Your task to perform on an android device: Search for vegetarian restaurants on Maps Image 0: 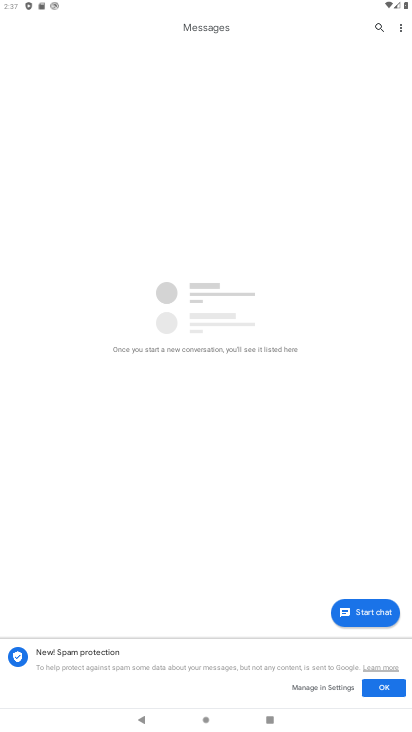
Step 0: press home button
Your task to perform on an android device: Search for vegetarian restaurants on Maps Image 1: 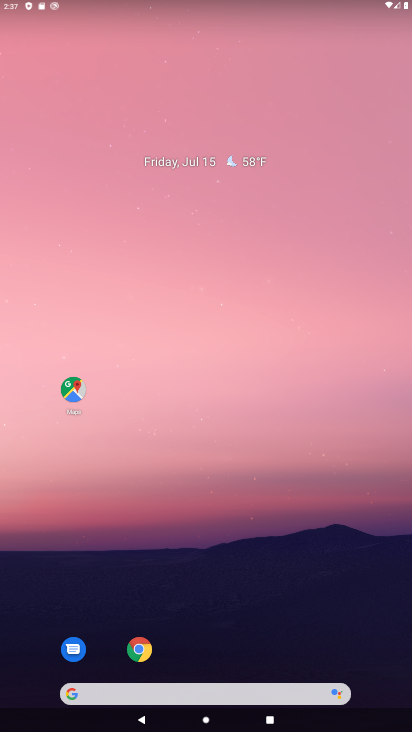
Step 1: drag from (228, 707) to (220, 96)
Your task to perform on an android device: Search for vegetarian restaurants on Maps Image 2: 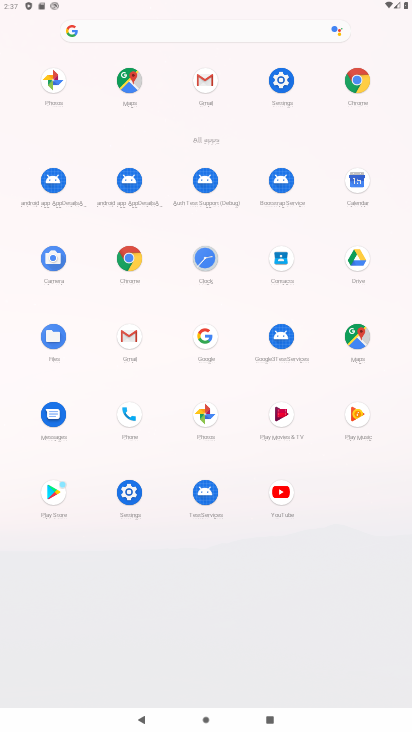
Step 2: click (363, 339)
Your task to perform on an android device: Search for vegetarian restaurants on Maps Image 3: 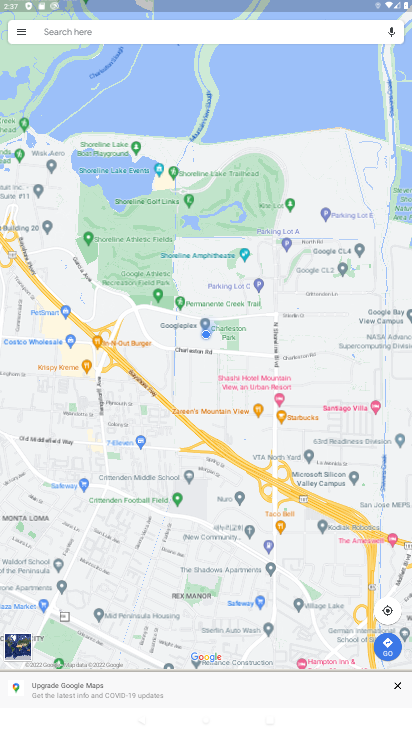
Step 3: click (152, 35)
Your task to perform on an android device: Search for vegetarian restaurants on Maps Image 4: 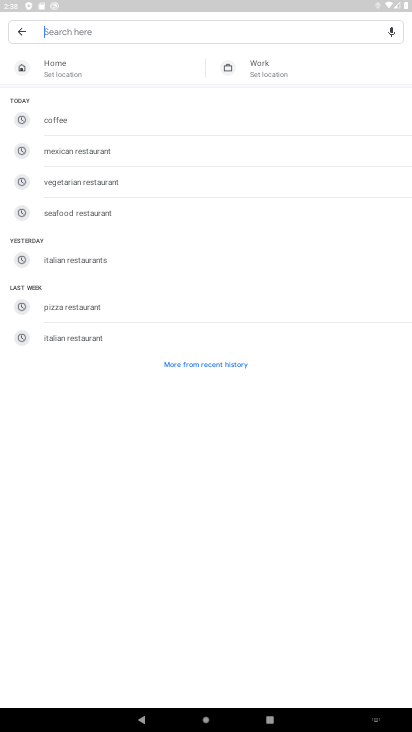
Step 4: type "vegetarian restaurants"
Your task to perform on an android device: Search for vegetarian restaurants on Maps Image 5: 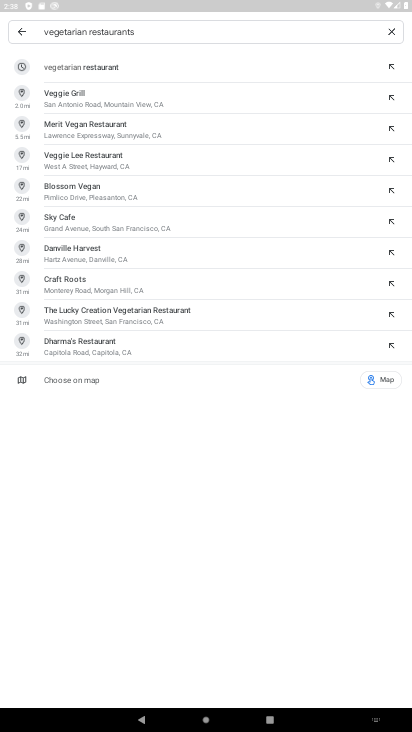
Step 5: click (86, 65)
Your task to perform on an android device: Search for vegetarian restaurants on Maps Image 6: 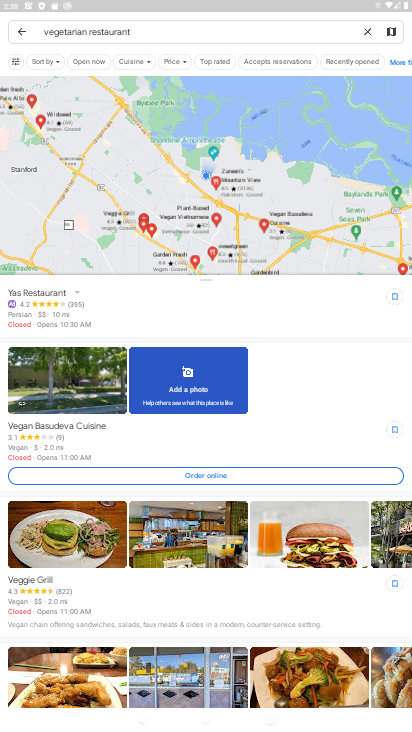
Step 6: task complete